Your task to perform on an android device: turn notification dots off Image 0: 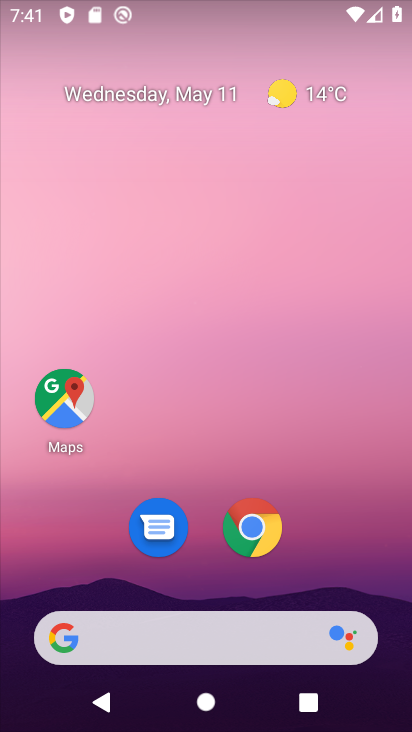
Step 0: drag from (192, 560) to (180, 2)
Your task to perform on an android device: turn notification dots off Image 1: 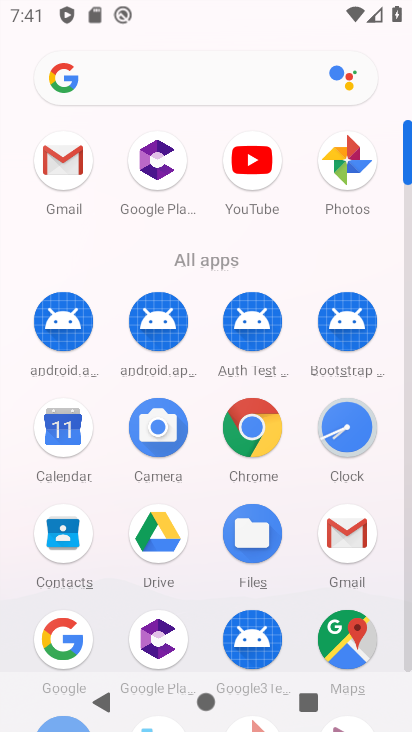
Step 1: drag from (200, 520) to (212, 109)
Your task to perform on an android device: turn notification dots off Image 2: 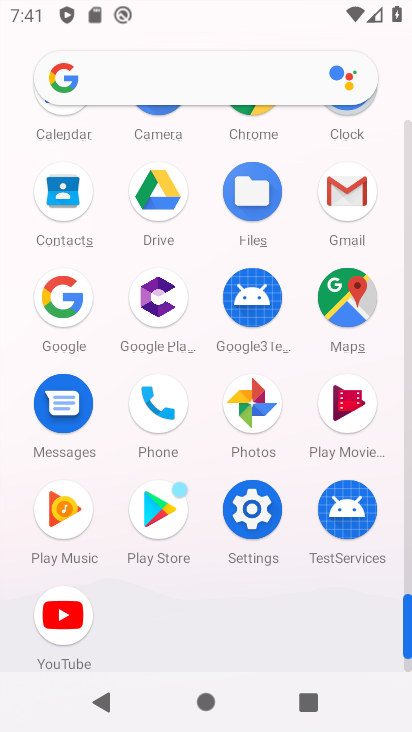
Step 2: click (252, 513)
Your task to perform on an android device: turn notification dots off Image 3: 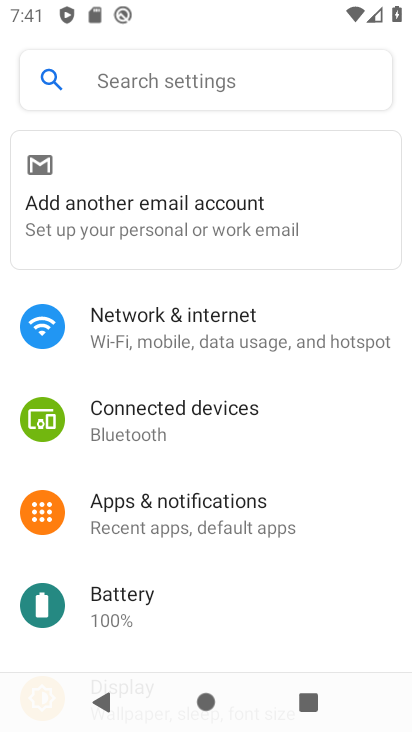
Step 3: click (276, 517)
Your task to perform on an android device: turn notification dots off Image 4: 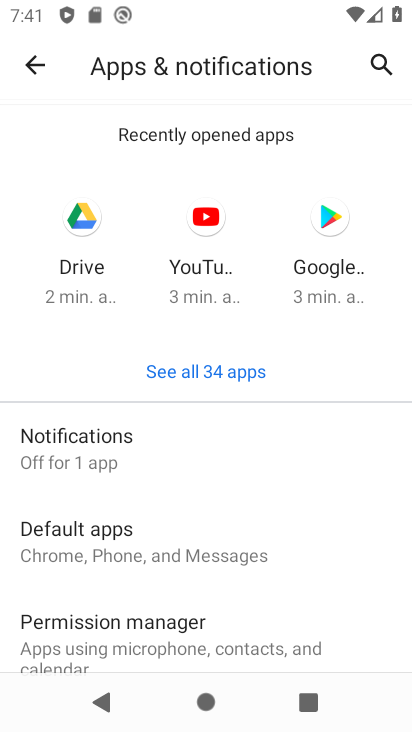
Step 4: click (120, 458)
Your task to perform on an android device: turn notification dots off Image 5: 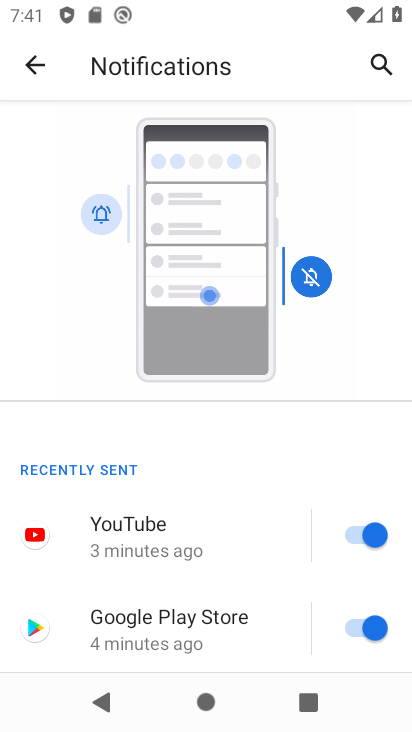
Step 5: drag from (127, 610) to (282, 11)
Your task to perform on an android device: turn notification dots off Image 6: 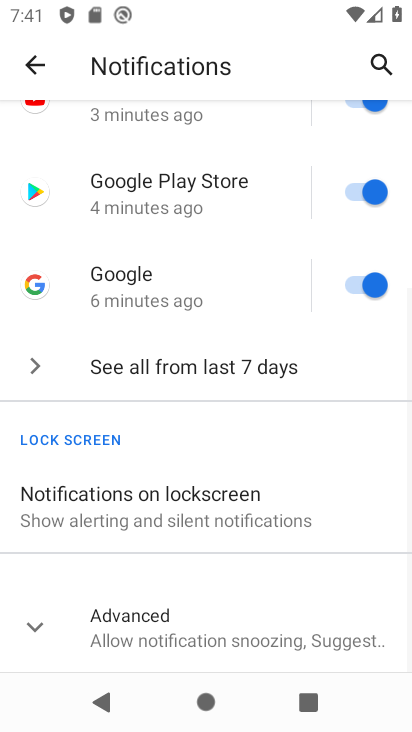
Step 6: drag from (147, 626) to (226, 110)
Your task to perform on an android device: turn notification dots off Image 7: 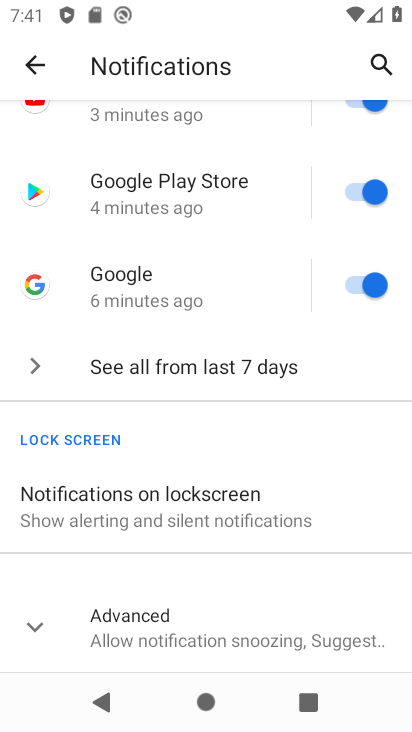
Step 7: click (220, 600)
Your task to perform on an android device: turn notification dots off Image 8: 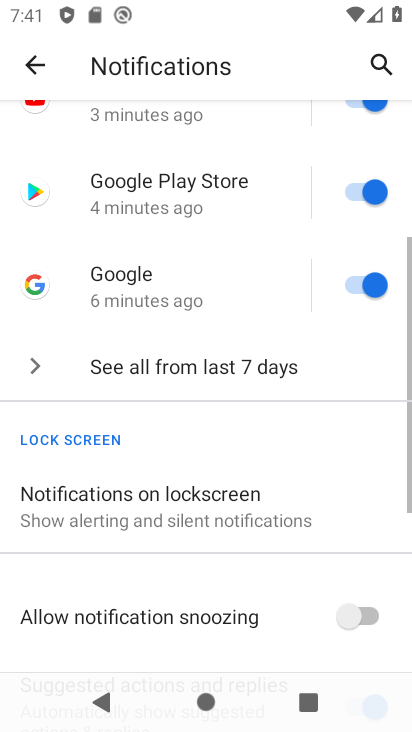
Step 8: drag from (220, 600) to (292, 60)
Your task to perform on an android device: turn notification dots off Image 9: 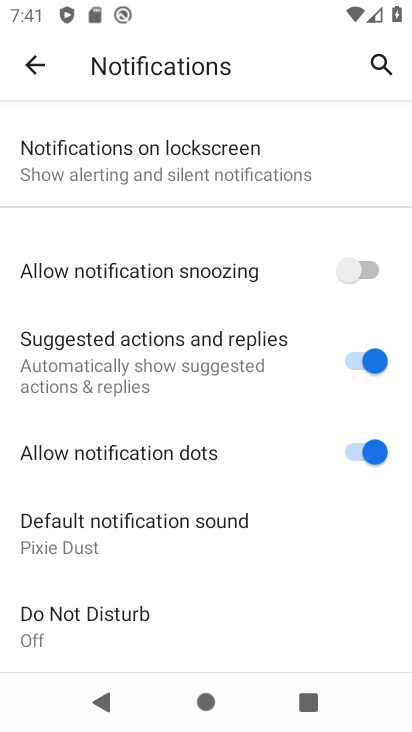
Step 9: click (367, 455)
Your task to perform on an android device: turn notification dots off Image 10: 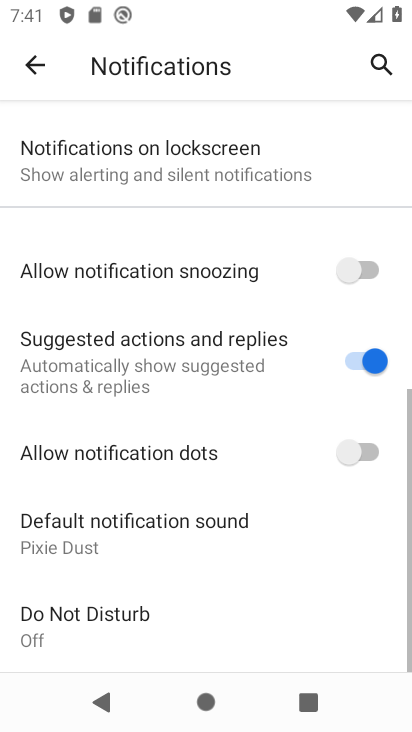
Step 10: task complete